Your task to perform on an android device: turn notification dots on Image 0: 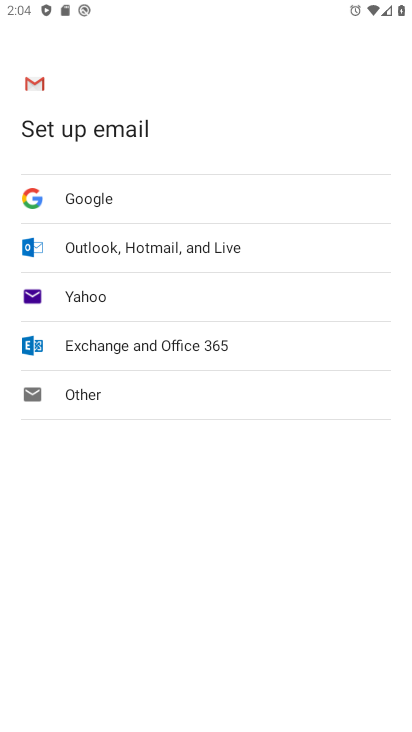
Step 0: press home button
Your task to perform on an android device: turn notification dots on Image 1: 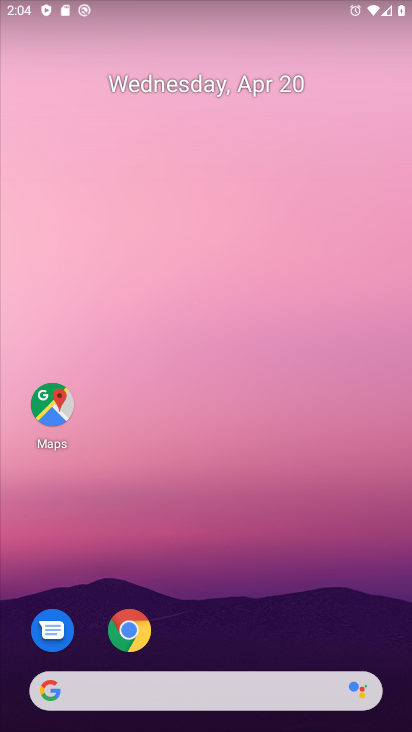
Step 1: drag from (218, 563) to (196, 195)
Your task to perform on an android device: turn notification dots on Image 2: 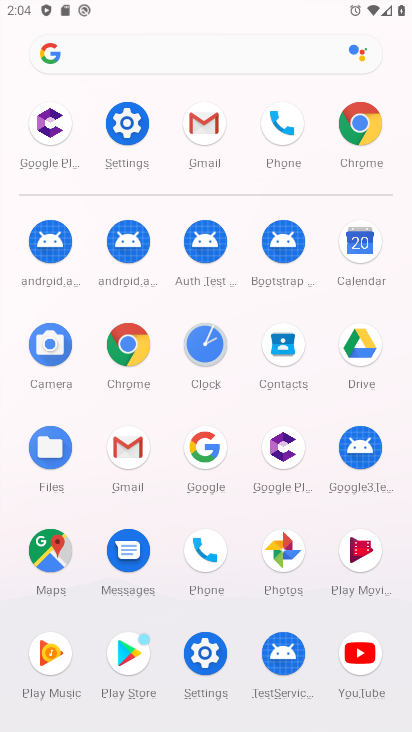
Step 2: click (120, 126)
Your task to perform on an android device: turn notification dots on Image 3: 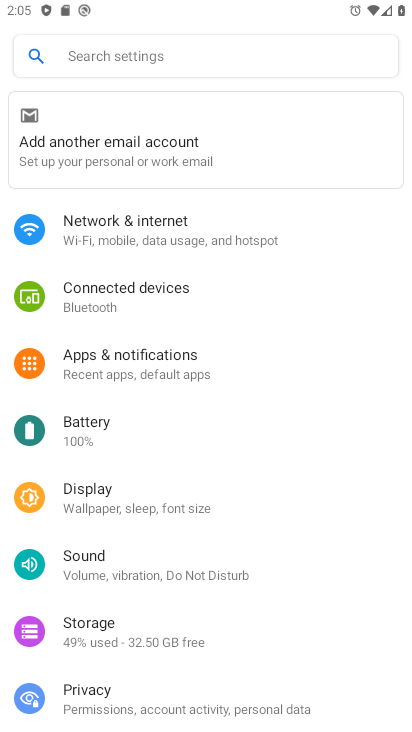
Step 3: click (107, 369)
Your task to perform on an android device: turn notification dots on Image 4: 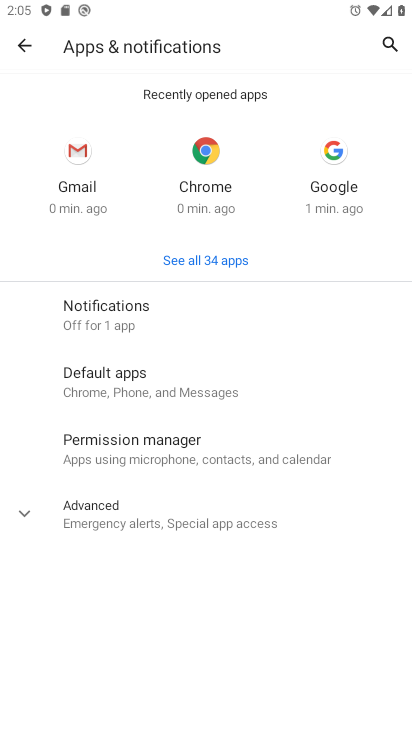
Step 4: click (96, 321)
Your task to perform on an android device: turn notification dots on Image 5: 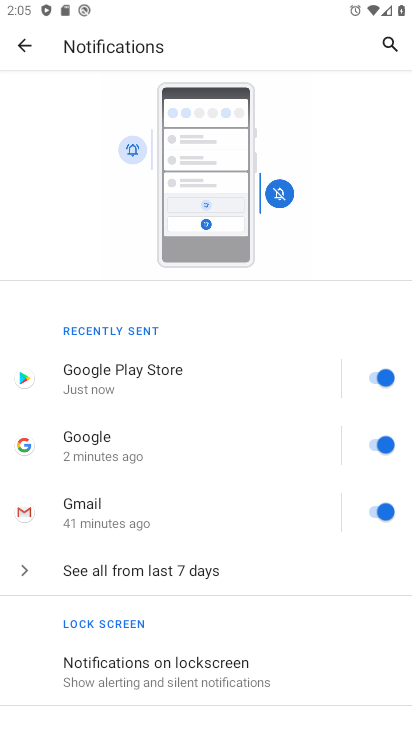
Step 5: drag from (132, 622) to (148, 436)
Your task to perform on an android device: turn notification dots on Image 6: 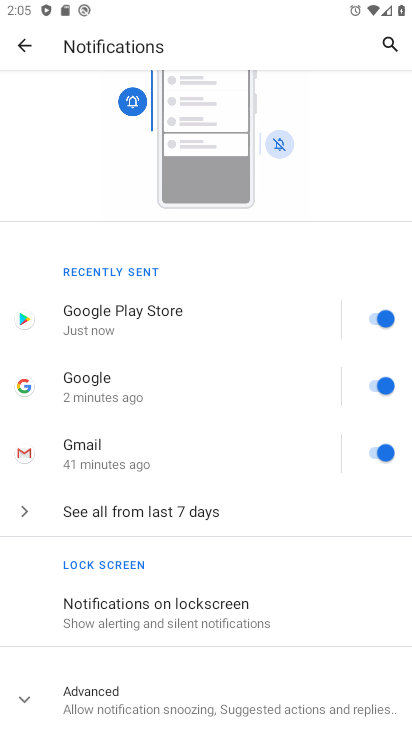
Step 6: click (216, 707)
Your task to perform on an android device: turn notification dots on Image 7: 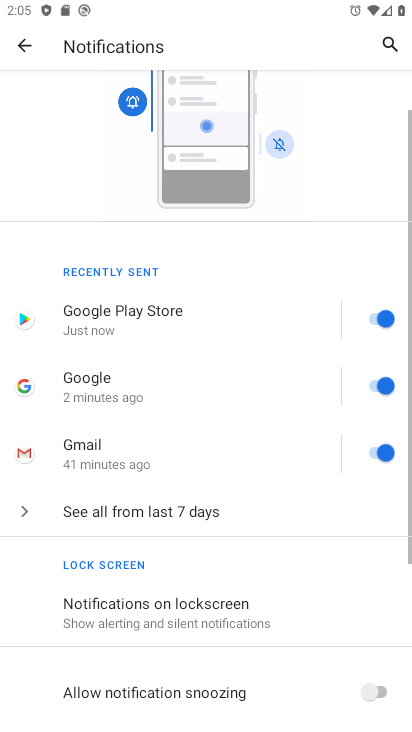
Step 7: task complete